Your task to perform on an android device: Show me popular games on the Play Store Image 0: 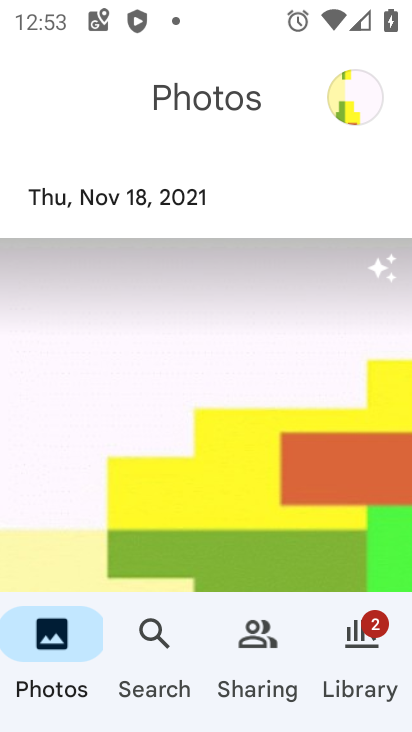
Step 0: press home button
Your task to perform on an android device: Show me popular games on the Play Store Image 1: 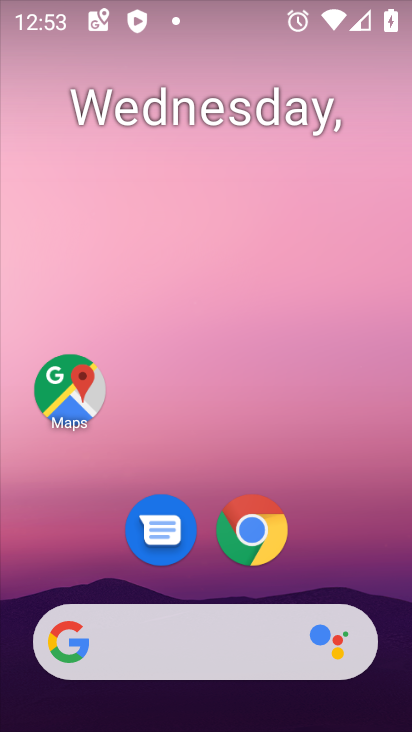
Step 1: drag from (205, 577) to (212, 106)
Your task to perform on an android device: Show me popular games on the Play Store Image 2: 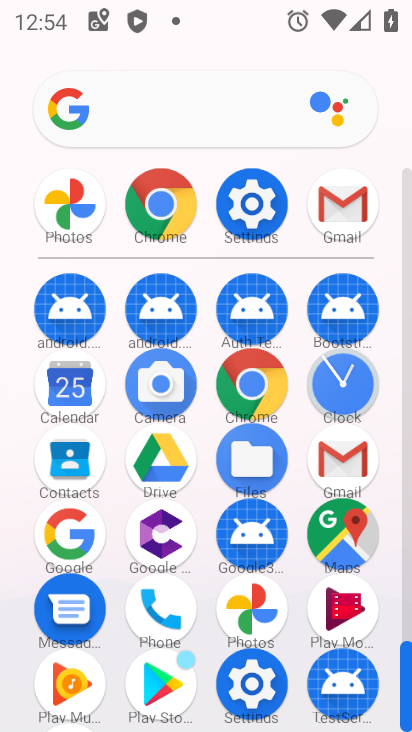
Step 2: click (158, 672)
Your task to perform on an android device: Show me popular games on the Play Store Image 3: 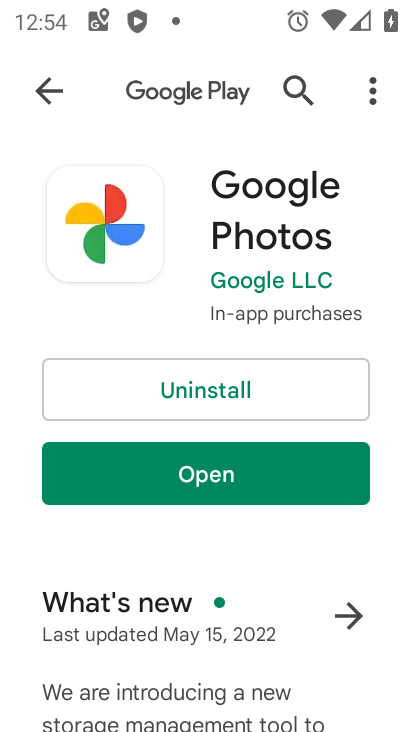
Step 3: click (179, 489)
Your task to perform on an android device: Show me popular games on the Play Store Image 4: 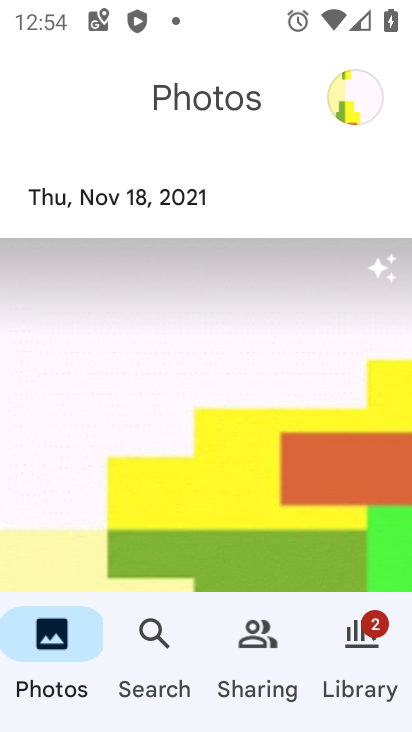
Step 4: press back button
Your task to perform on an android device: Show me popular games on the Play Store Image 5: 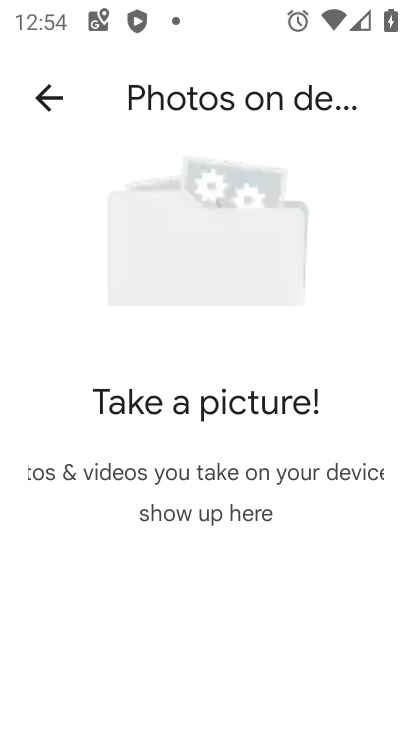
Step 5: press home button
Your task to perform on an android device: Show me popular games on the Play Store Image 6: 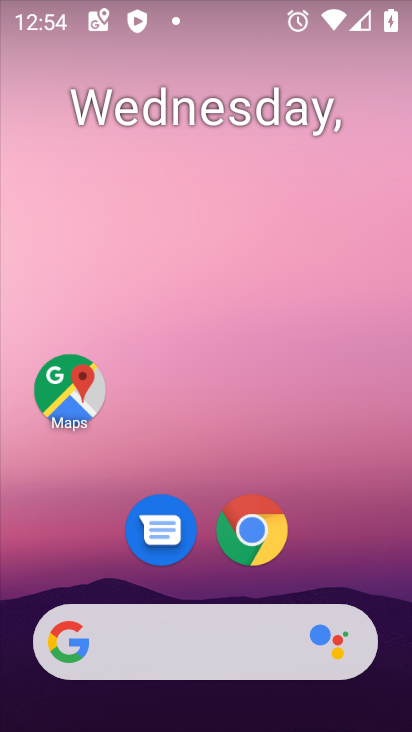
Step 6: drag from (142, 589) to (178, 167)
Your task to perform on an android device: Show me popular games on the Play Store Image 7: 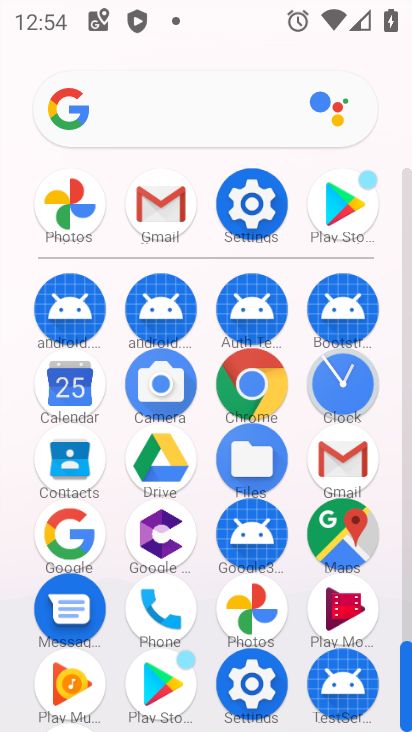
Step 7: click (162, 671)
Your task to perform on an android device: Show me popular games on the Play Store Image 8: 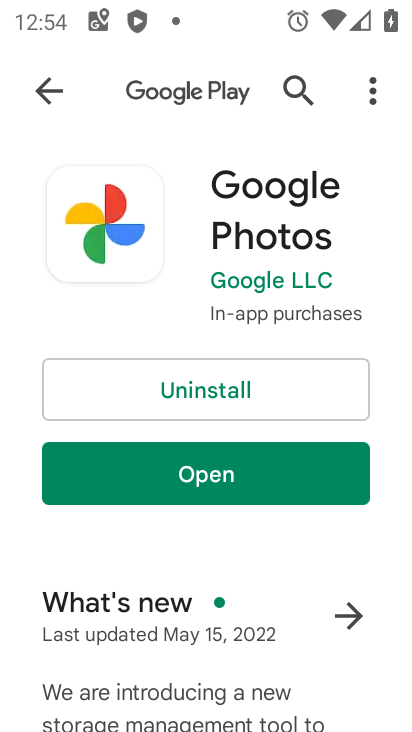
Step 8: click (62, 92)
Your task to perform on an android device: Show me popular games on the Play Store Image 9: 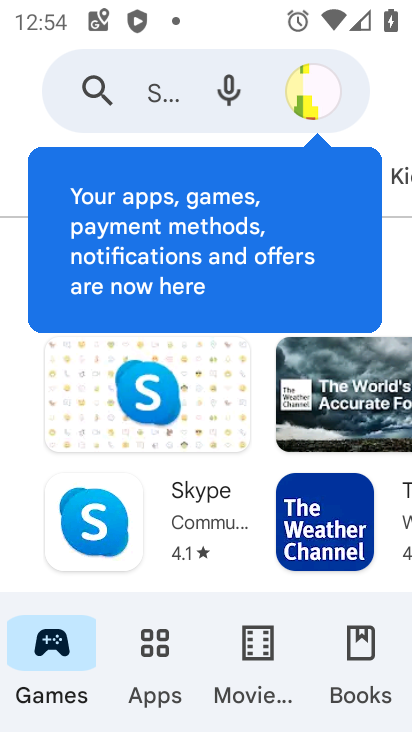
Step 9: click (158, 655)
Your task to perform on an android device: Show me popular games on the Play Store Image 10: 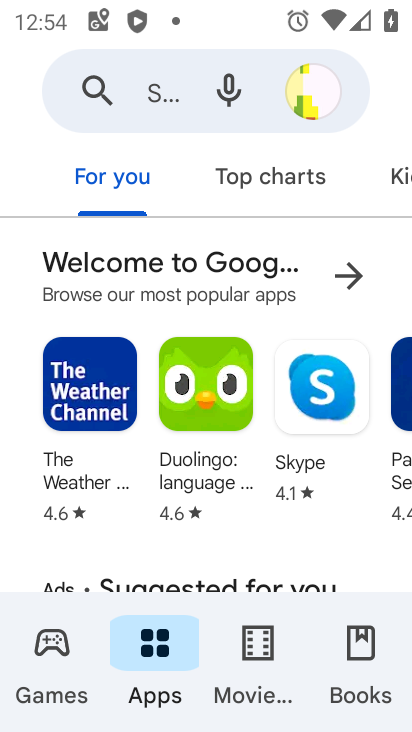
Step 10: click (182, 80)
Your task to perform on an android device: Show me popular games on the Play Store Image 11: 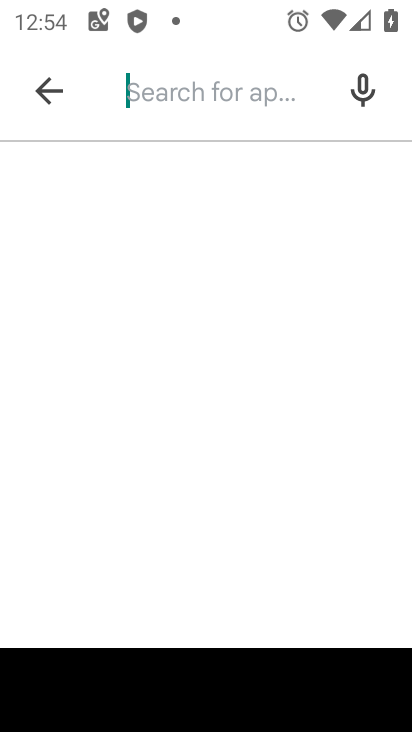
Step 11: type "Popular games"
Your task to perform on an android device: Show me popular games on the Play Store Image 12: 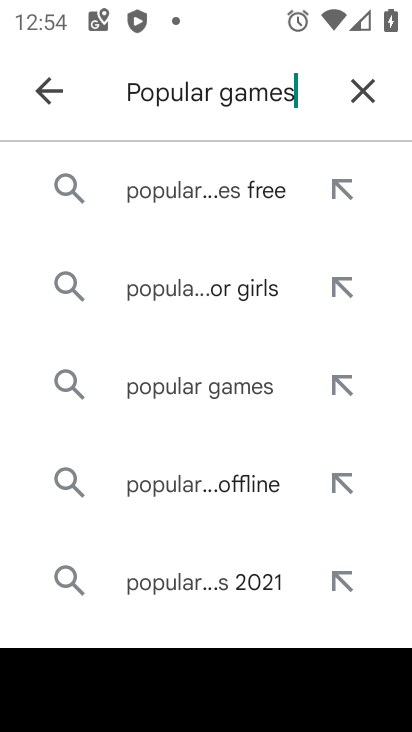
Step 12: click (216, 382)
Your task to perform on an android device: Show me popular games on the Play Store Image 13: 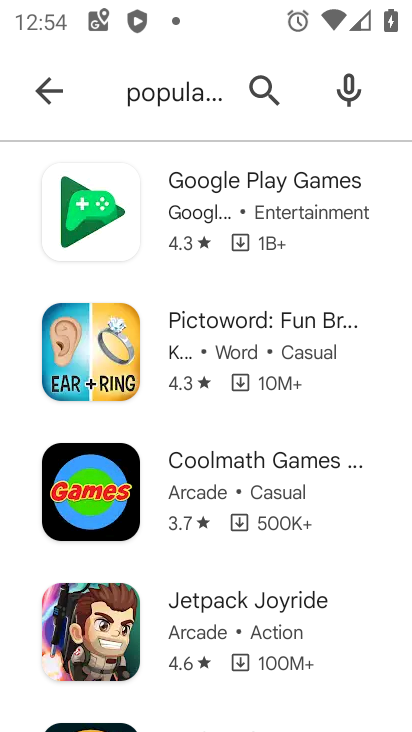
Step 13: task complete